Your task to perform on an android device: stop showing notifications on the lock screen Image 0: 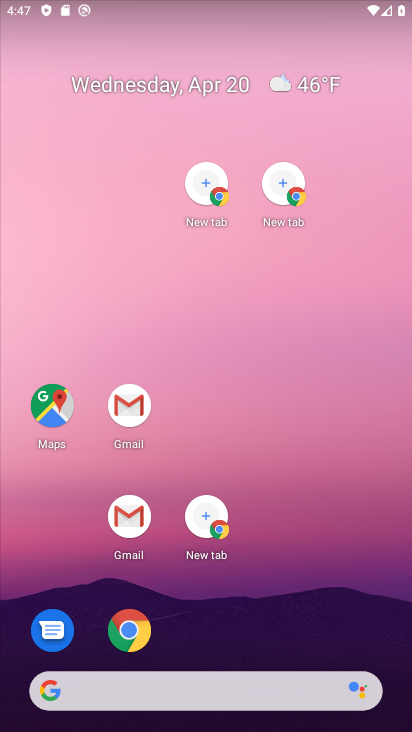
Step 0: drag from (186, 204) to (158, 100)
Your task to perform on an android device: stop showing notifications on the lock screen Image 1: 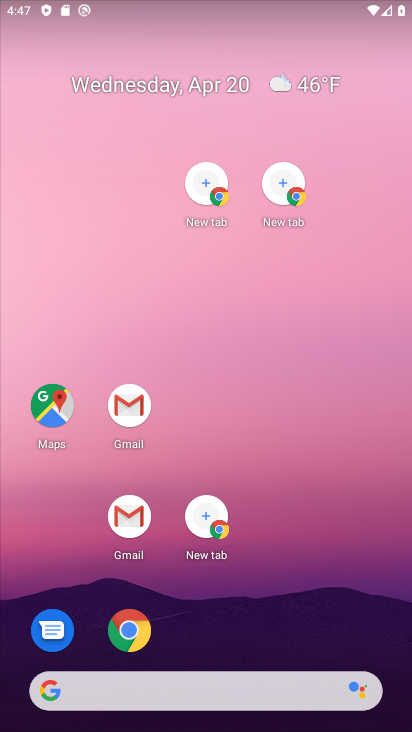
Step 1: drag from (234, 606) to (62, 78)
Your task to perform on an android device: stop showing notifications on the lock screen Image 2: 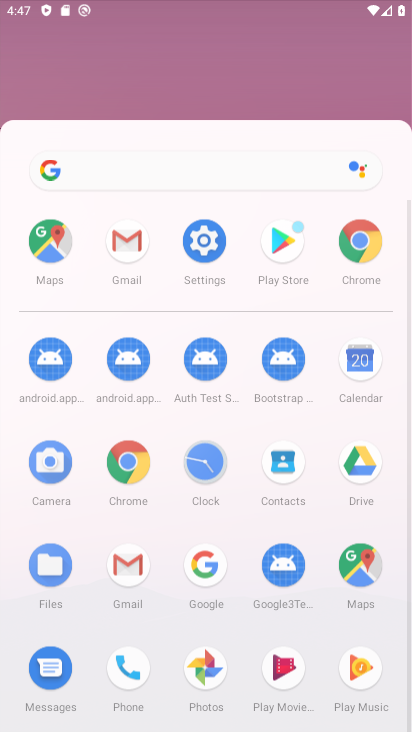
Step 2: drag from (268, 296) to (209, 153)
Your task to perform on an android device: stop showing notifications on the lock screen Image 3: 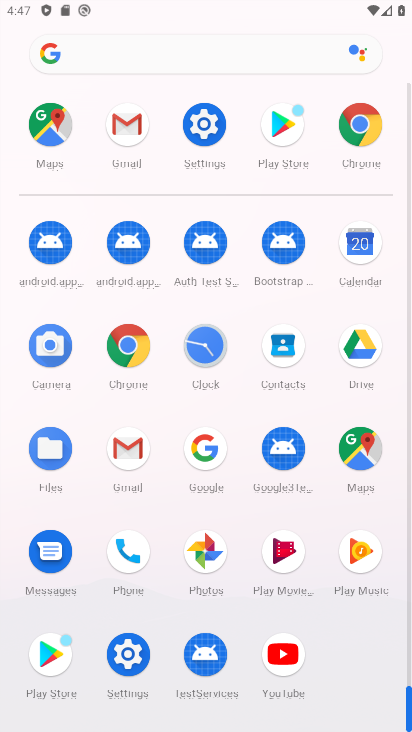
Step 3: click (192, 128)
Your task to perform on an android device: stop showing notifications on the lock screen Image 4: 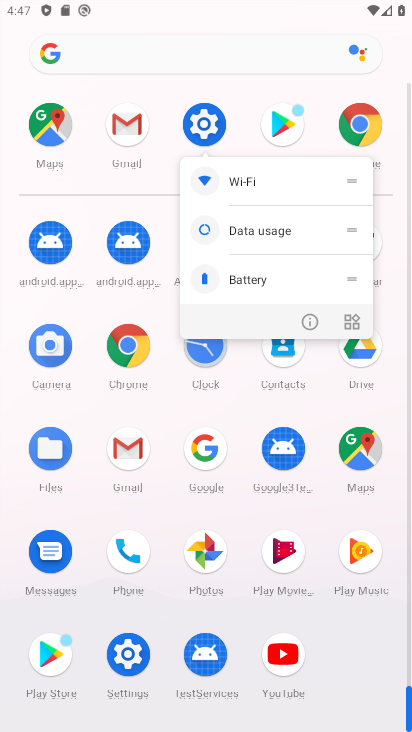
Step 4: click (172, 135)
Your task to perform on an android device: stop showing notifications on the lock screen Image 5: 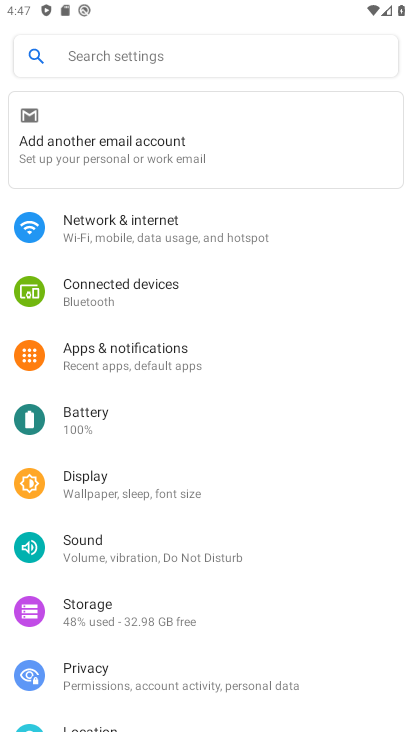
Step 5: click (123, 349)
Your task to perform on an android device: stop showing notifications on the lock screen Image 6: 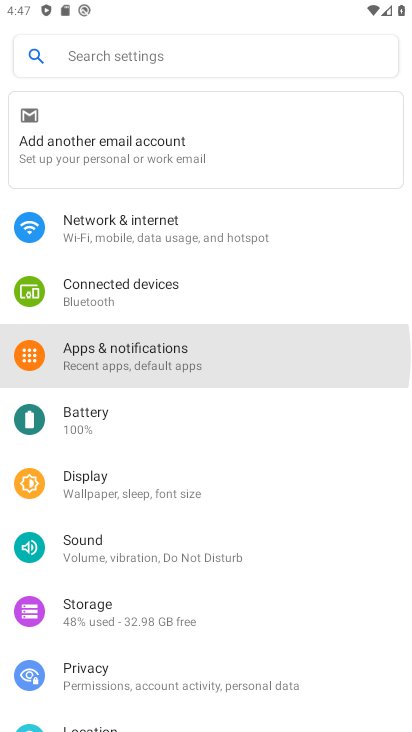
Step 6: click (123, 349)
Your task to perform on an android device: stop showing notifications on the lock screen Image 7: 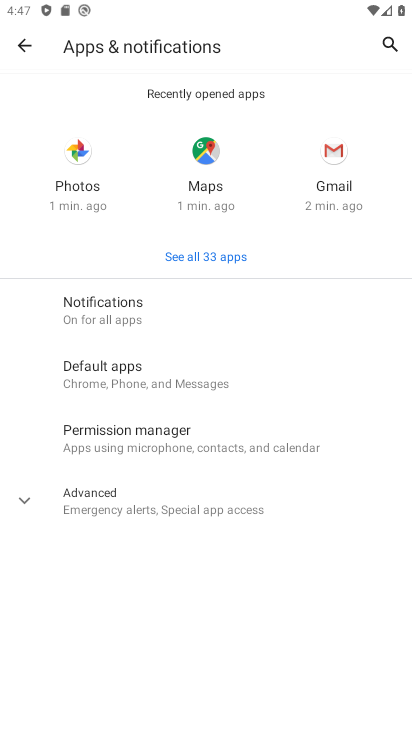
Step 7: drag from (146, 487) to (156, 252)
Your task to perform on an android device: stop showing notifications on the lock screen Image 8: 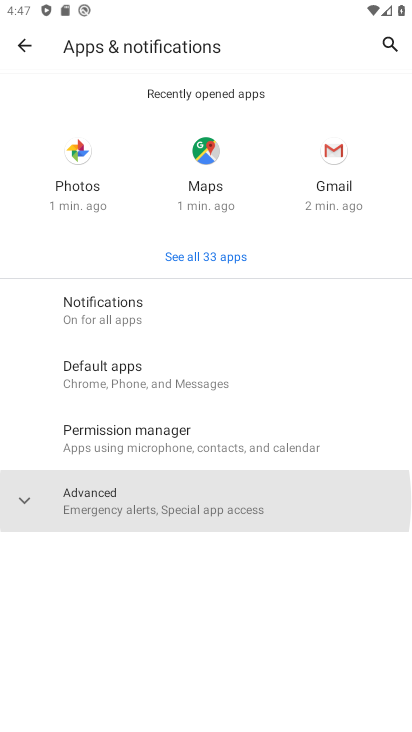
Step 8: drag from (195, 413) to (149, 216)
Your task to perform on an android device: stop showing notifications on the lock screen Image 9: 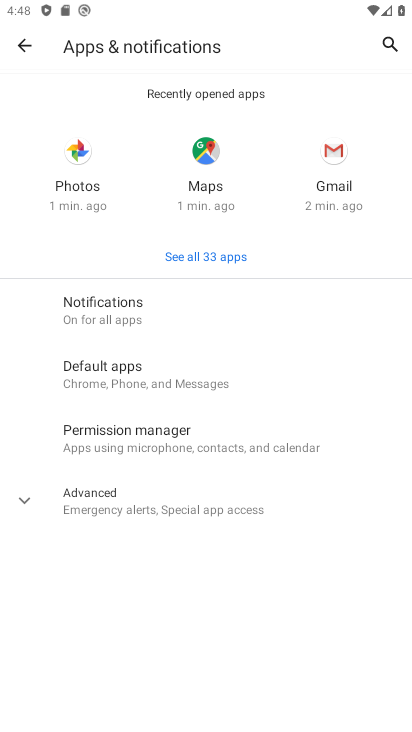
Step 9: click (111, 316)
Your task to perform on an android device: stop showing notifications on the lock screen Image 10: 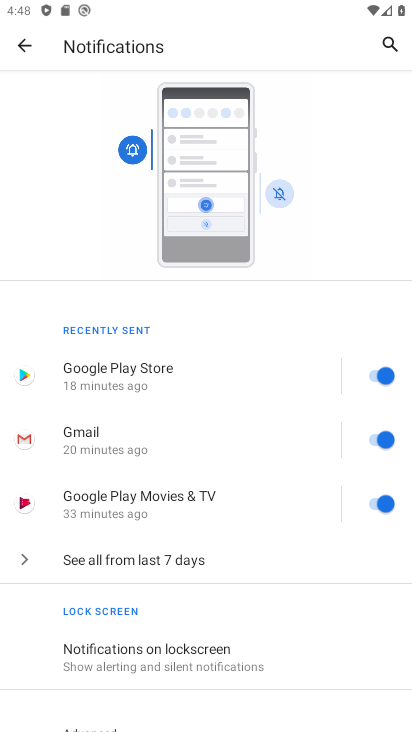
Step 10: drag from (199, 643) to (174, 334)
Your task to perform on an android device: stop showing notifications on the lock screen Image 11: 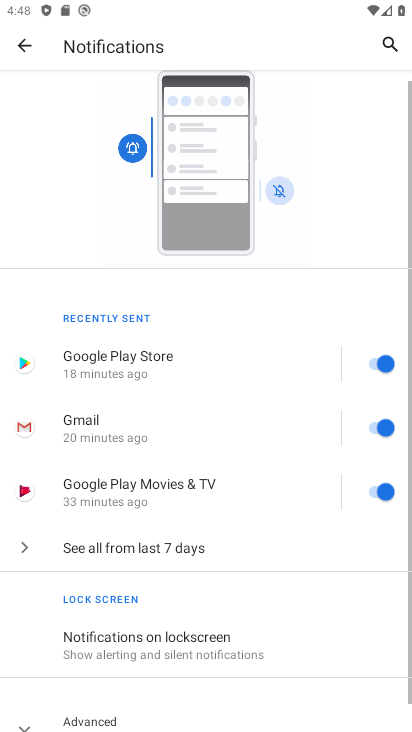
Step 11: drag from (122, 441) to (97, 182)
Your task to perform on an android device: stop showing notifications on the lock screen Image 12: 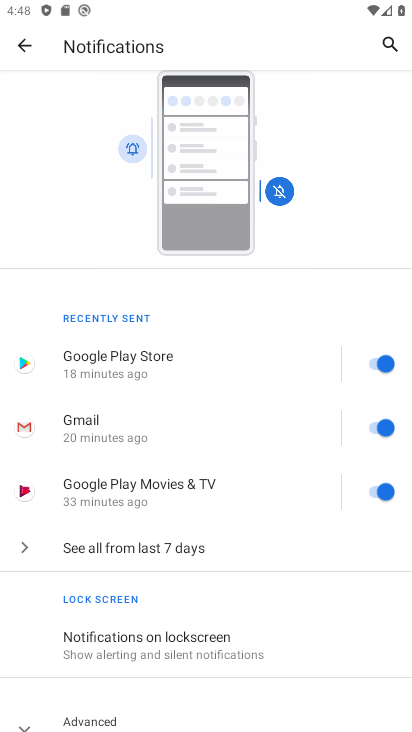
Step 12: click (157, 639)
Your task to perform on an android device: stop showing notifications on the lock screen Image 13: 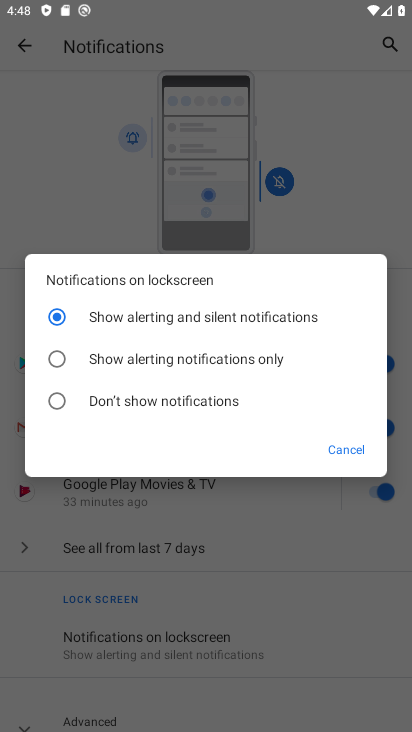
Step 13: click (358, 441)
Your task to perform on an android device: stop showing notifications on the lock screen Image 14: 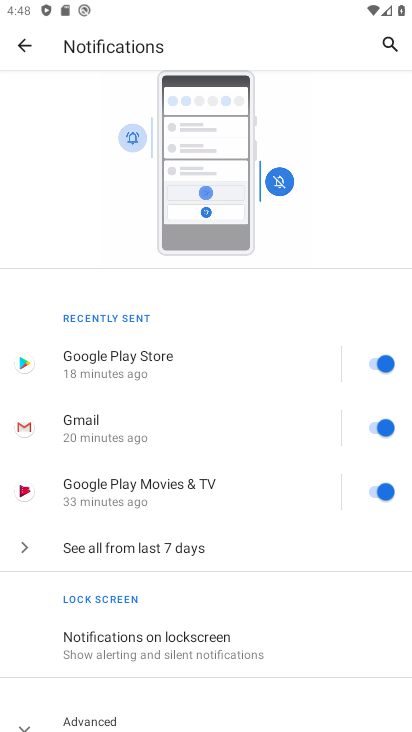
Step 14: click (350, 444)
Your task to perform on an android device: stop showing notifications on the lock screen Image 15: 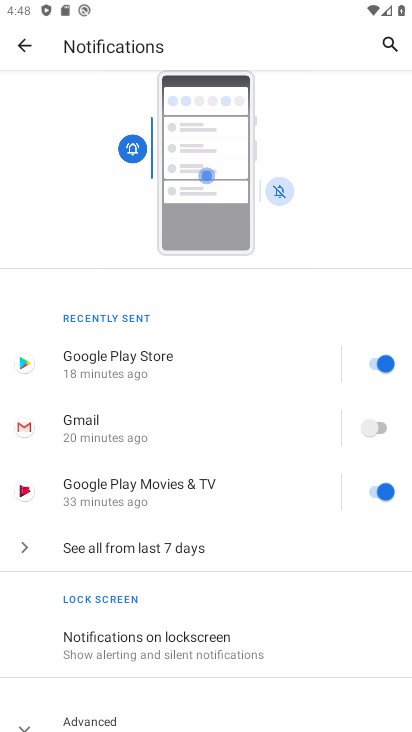
Step 15: task complete